Your task to perform on an android device: Open the phone app and click the voicemail tab. Image 0: 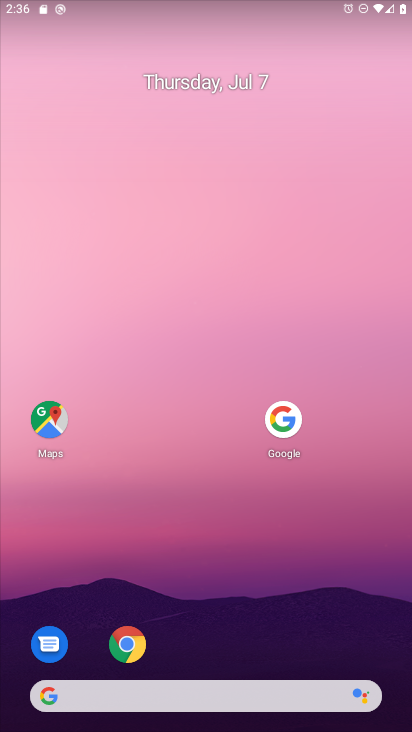
Step 0: drag from (166, 694) to (315, 123)
Your task to perform on an android device: Open the phone app and click the voicemail tab. Image 1: 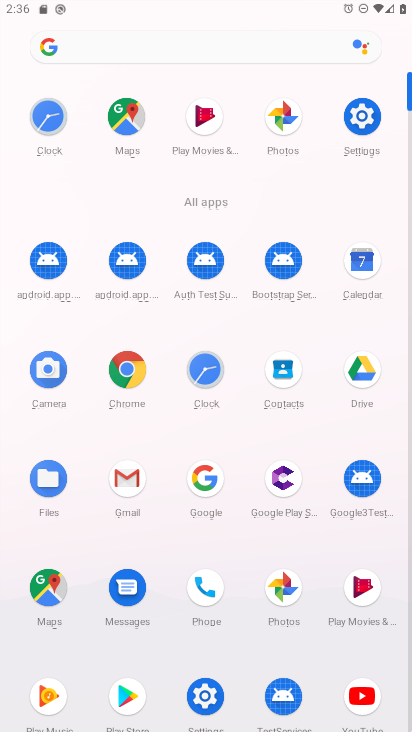
Step 1: click (209, 591)
Your task to perform on an android device: Open the phone app and click the voicemail tab. Image 2: 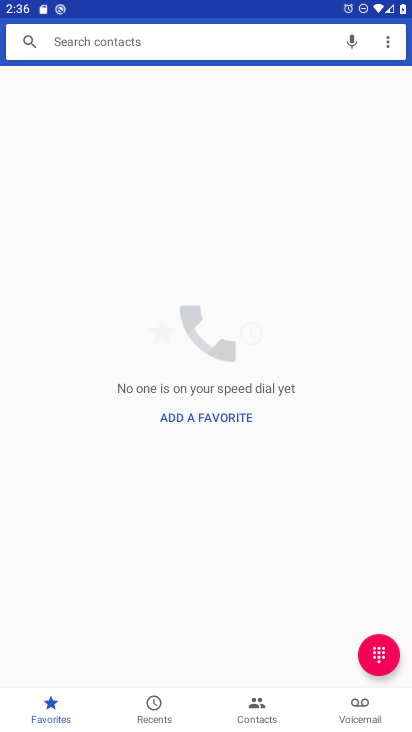
Step 2: click (349, 705)
Your task to perform on an android device: Open the phone app and click the voicemail tab. Image 3: 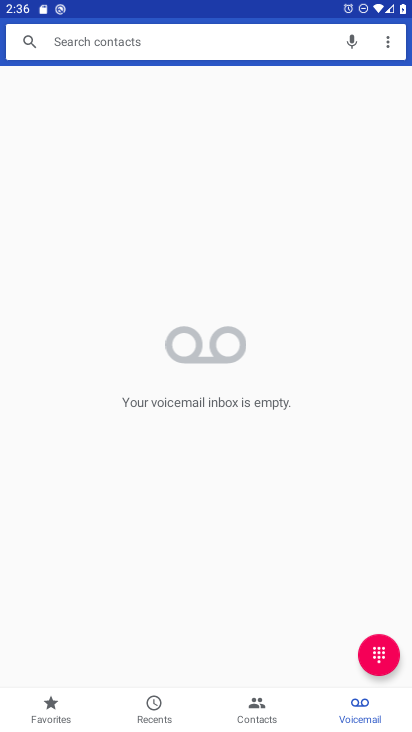
Step 3: task complete